Your task to perform on an android device: Open battery settings Image 0: 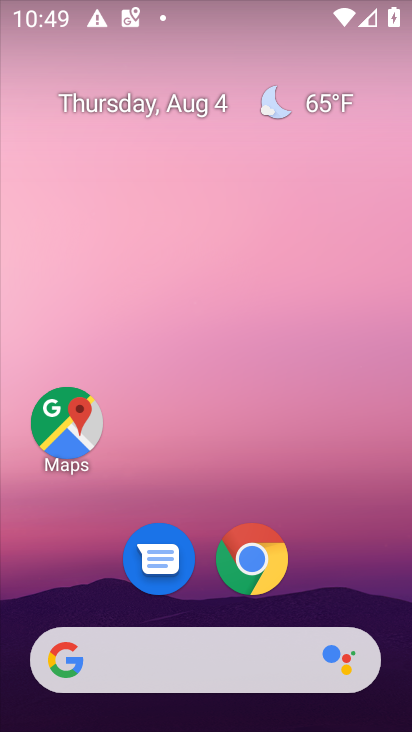
Step 0: drag from (171, 667) to (165, 22)
Your task to perform on an android device: Open battery settings Image 1: 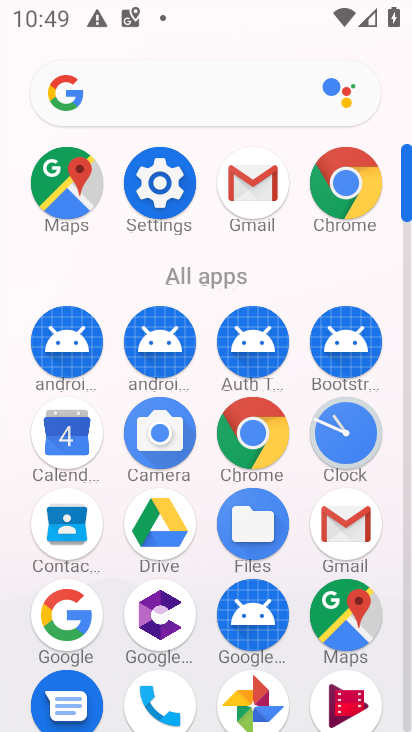
Step 1: click (158, 186)
Your task to perform on an android device: Open battery settings Image 2: 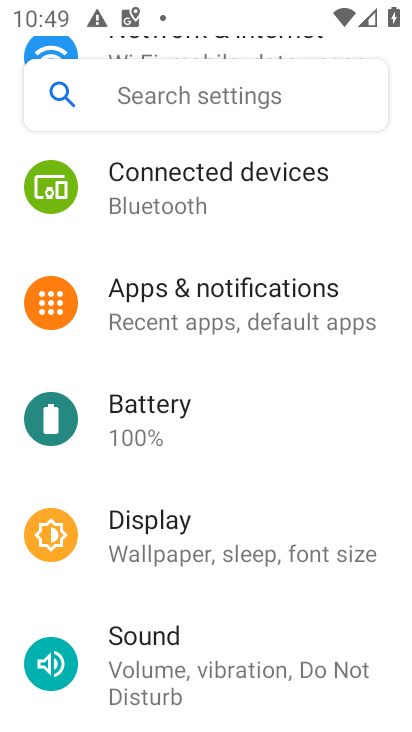
Step 2: click (148, 425)
Your task to perform on an android device: Open battery settings Image 3: 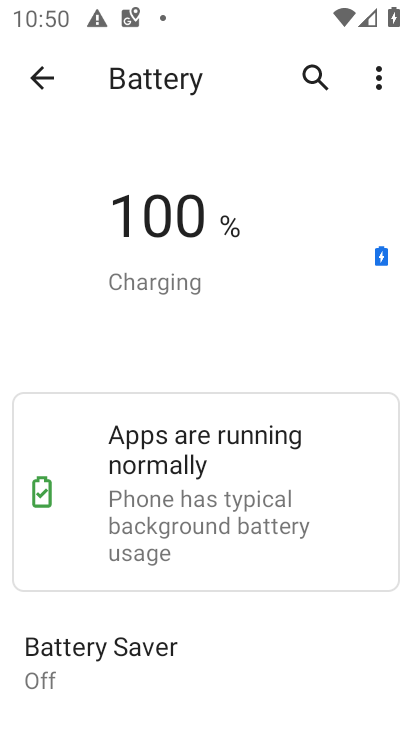
Step 3: task complete